Your task to perform on an android device: open chrome and create a bookmark for the current page Image 0: 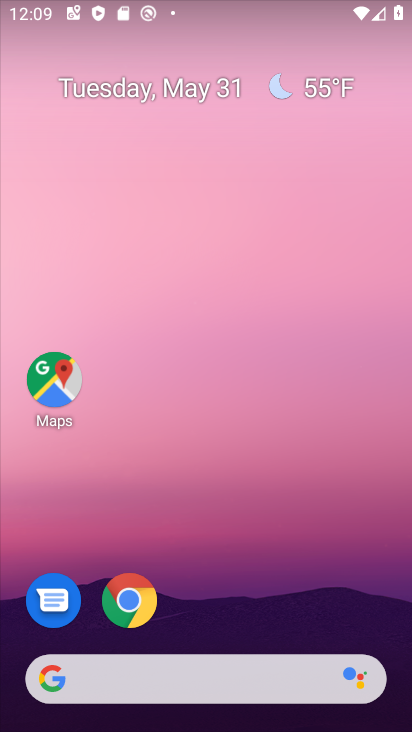
Step 0: click (122, 593)
Your task to perform on an android device: open chrome and create a bookmark for the current page Image 1: 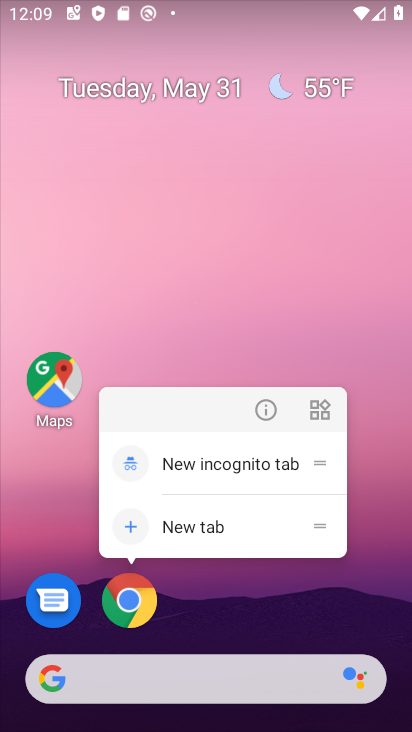
Step 1: click (125, 593)
Your task to perform on an android device: open chrome and create a bookmark for the current page Image 2: 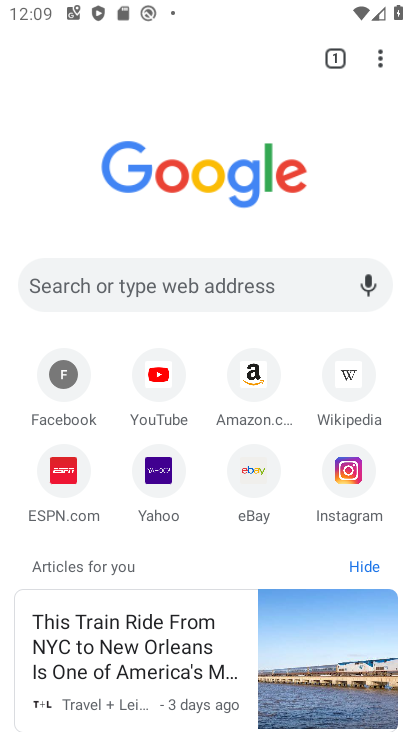
Step 2: click (378, 55)
Your task to perform on an android device: open chrome and create a bookmark for the current page Image 3: 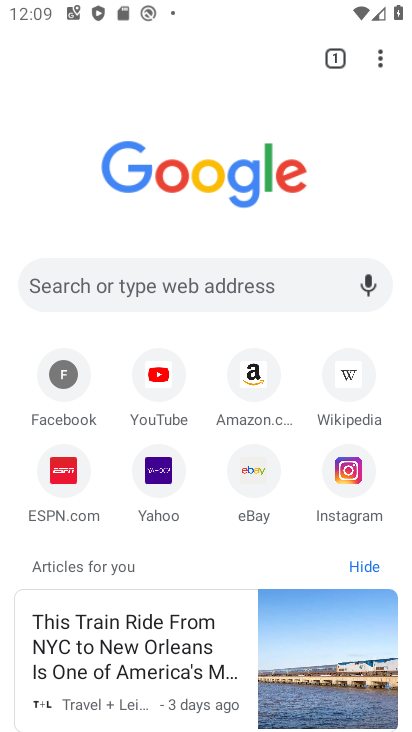
Step 3: drag from (377, 57) to (201, 57)
Your task to perform on an android device: open chrome and create a bookmark for the current page Image 4: 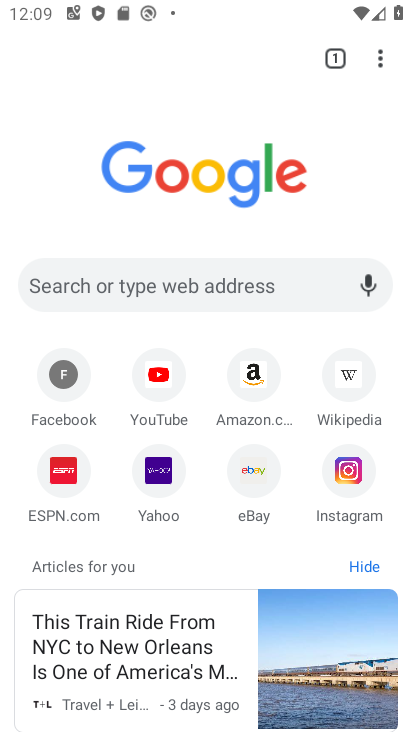
Step 4: click (203, 59)
Your task to perform on an android device: open chrome and create a bookmark for the current page Image 5: 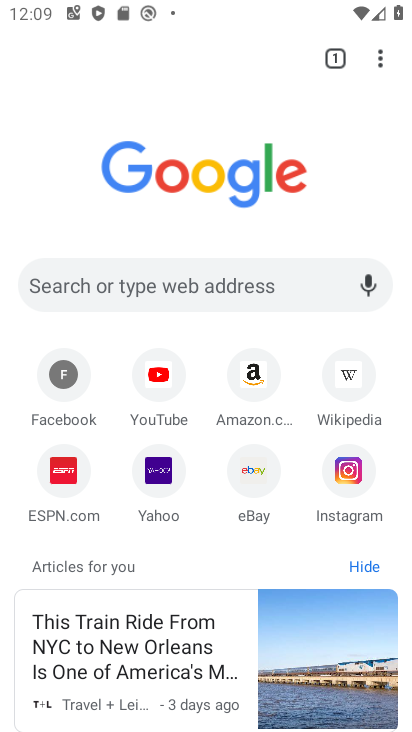
Step 5: click (382, 53)
Your task to perform on an android device: open chrome and create a bookmark for the current page Image 6: 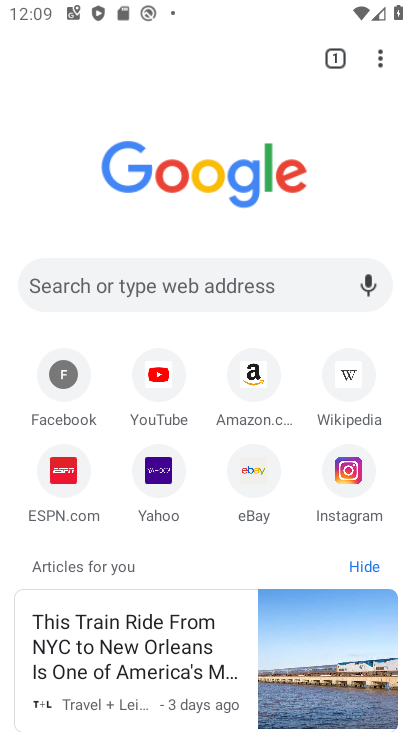
Step 6: task complete